Your task to perform on an android device: check android version Image 0: 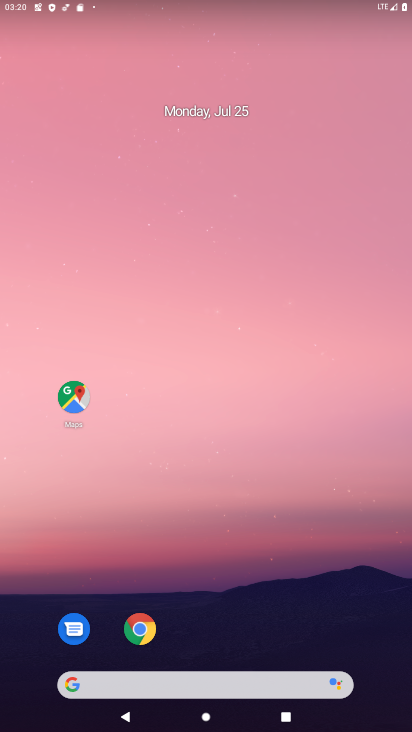
Step 0: drag from (303, 577) to (348, 5)
Your task to perform on an android device: check android version Image 1: 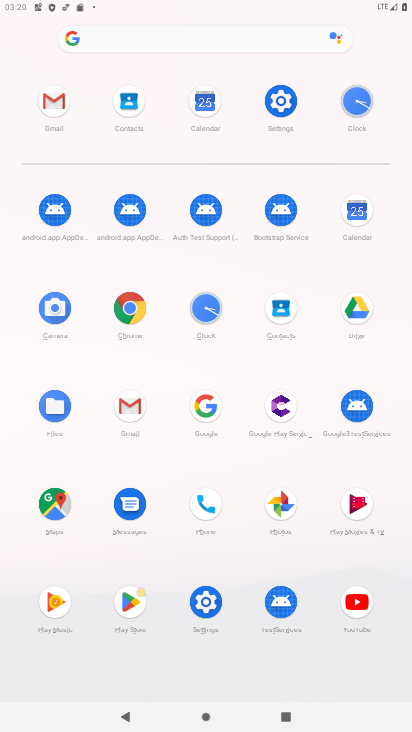
Step 1: click (293, 84)
Your task to perform on an android device: check android version Image 2: 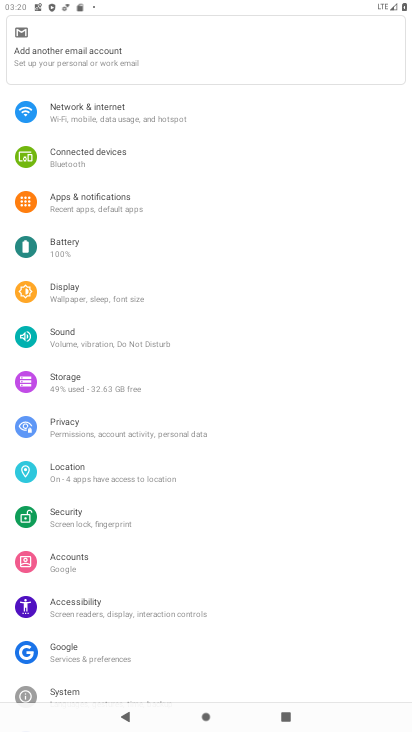
Step 2: drag from (221, 651) to (261, 288)
Your task to perform on an android device: check android version Image 3: 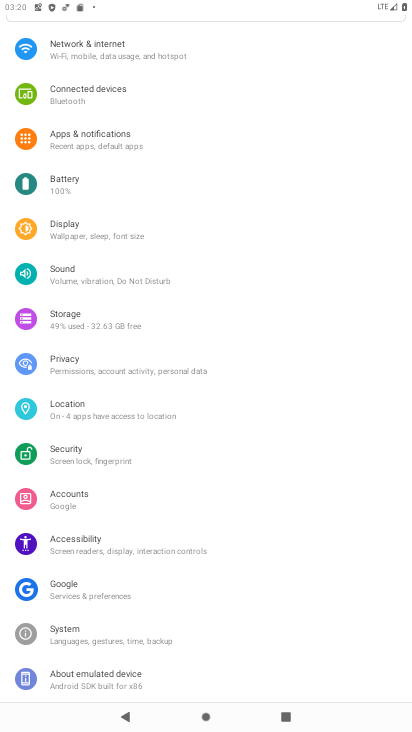
Step 3: drag from (167, 633) to (183, 434)
Your task to perform on an android device: check android version Image 4: 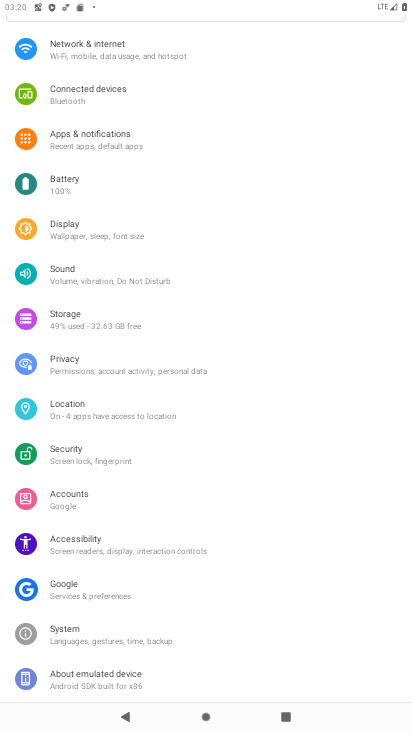
Step 4: click (62, 673)
Your task to perform on an android device: check android version Image 5: 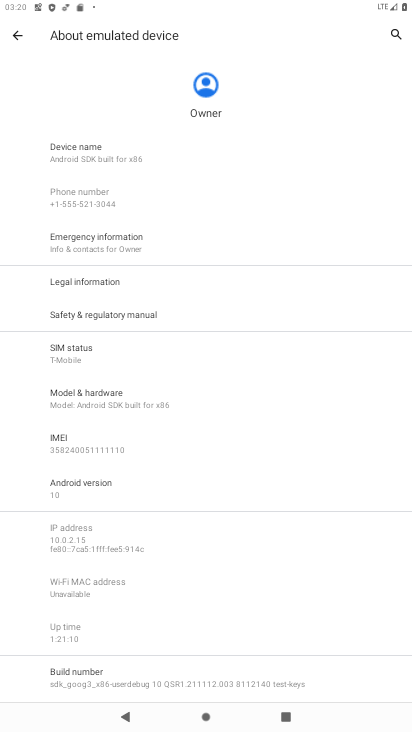
Step 5: click (67, 493)
Your task to perform on an android device: check android version Image 6: 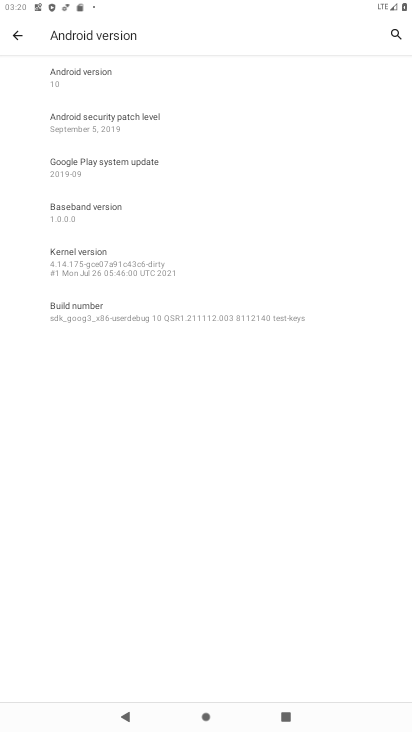
Step 6: task complete